Your task to perform on an android device: What's the weather? Image 0: 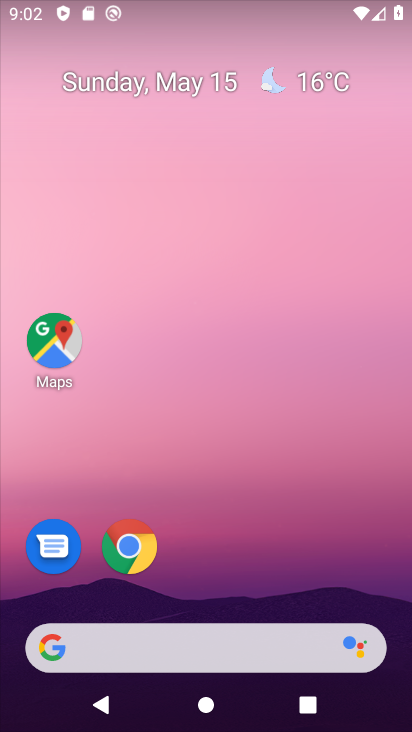
Step 0: click (343, 79)
Your task to perform on an android device: What's the weather? Image 1: 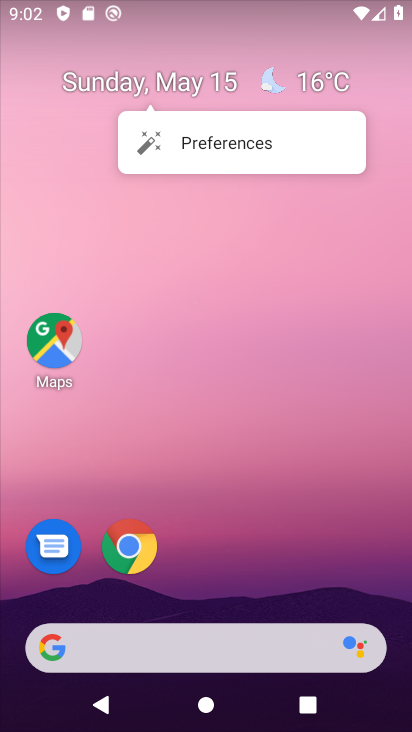
Step 1: click (311, 89)
Your task to perform on an android device: What's the weather? Image 2: 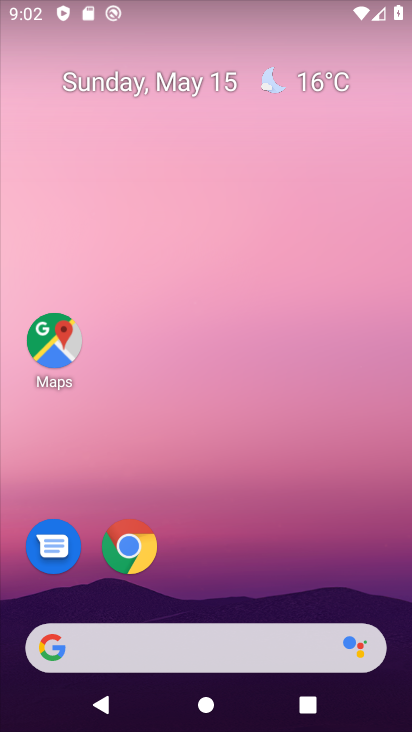
Step 2: click (337, 87)
Your task to perform on an android device: What's the weather? Image 3: 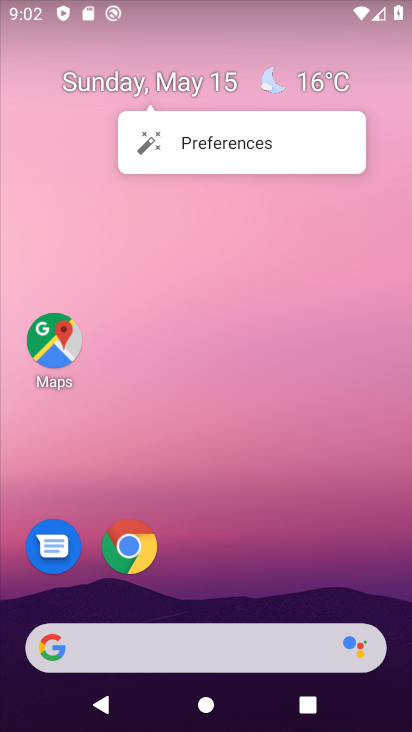
Step 3: click (313, 88)
Your task to perform on an android device: What's the weather? Image 4: 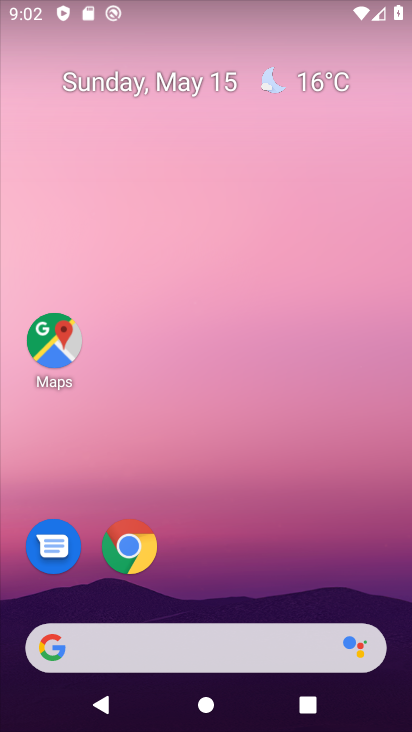
Step 4: click (278, 68)
Your task to perform on an android device: What's the weather? Image 5: 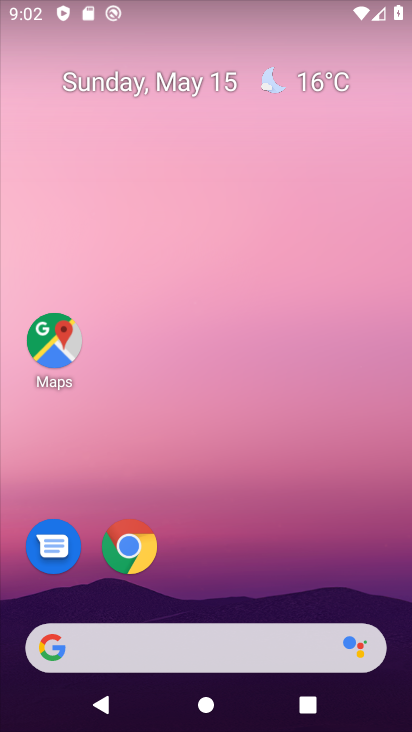
Step 5: click (323, 90)
Your task to perform on an android device: What's the weather? Image 6: 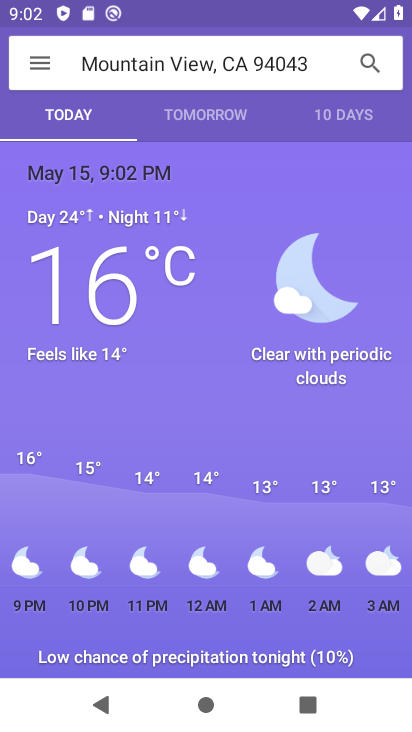
Step 6: task complete